Your task to perform on an android device: Open CNN.com Image 0: 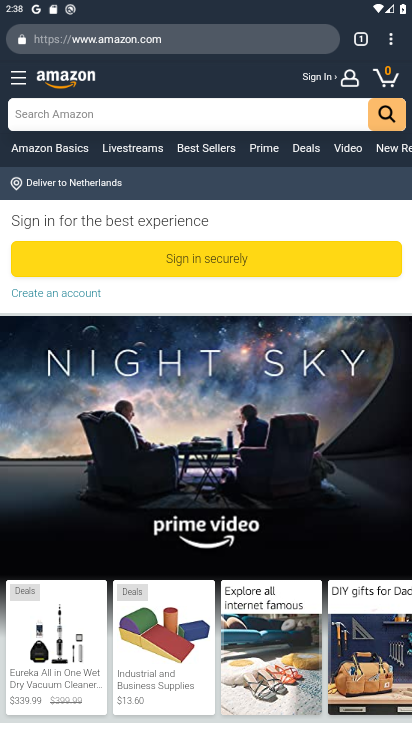
Step 0: drag from (230, 625) to (197, 212)
Your task to perform on an android device: Open CNN.com Image 1: 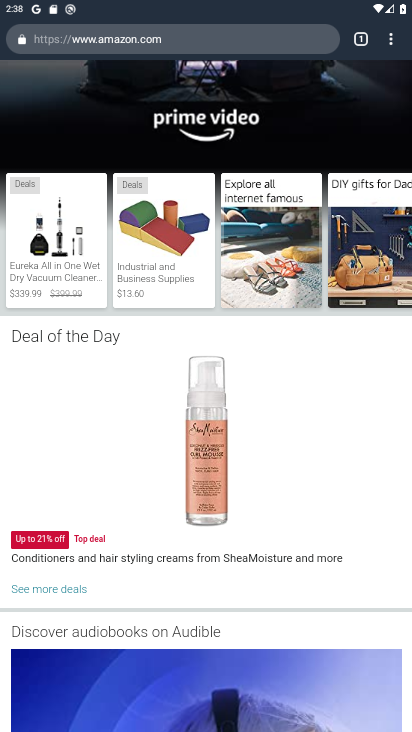
Step 1: press home button
Your task to perform on an android device: Open CNN.com Image 2: 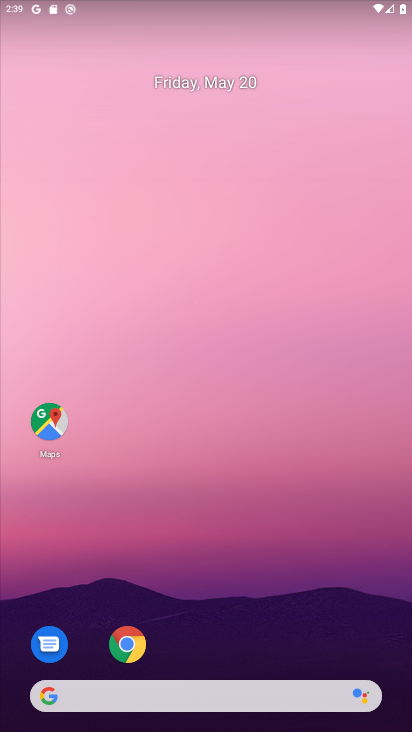
Step 2: drag from (235, 656) to (235, 224)
Your task to perform on an android device: Open CNN.com Image 3: 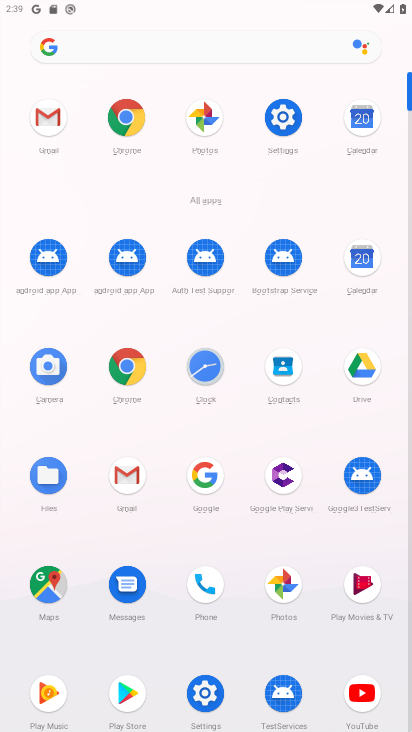
Step 3: click (209, 481)
Your task to perform on an android device: Open CNN.com Image 4: 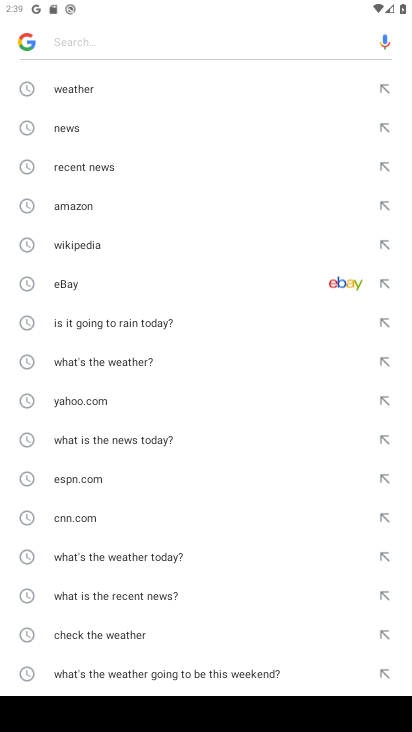
Step 4: click (95, 520)
Your task to perform on an android device: Open CNN.com Image 5: 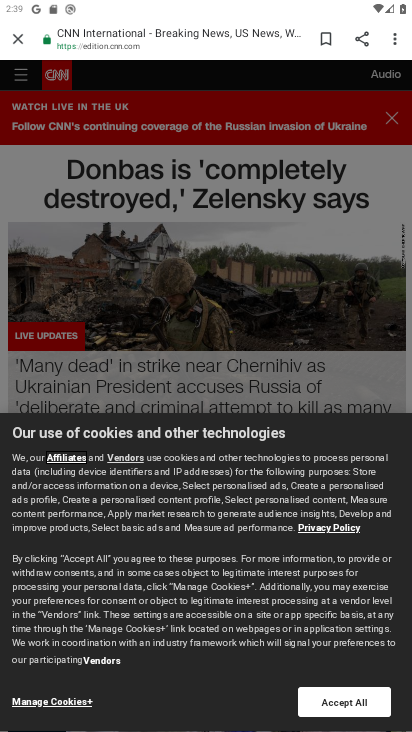
Step 5: task complete